Your task to perform on an android device: What's on my calendar today? Image 0: 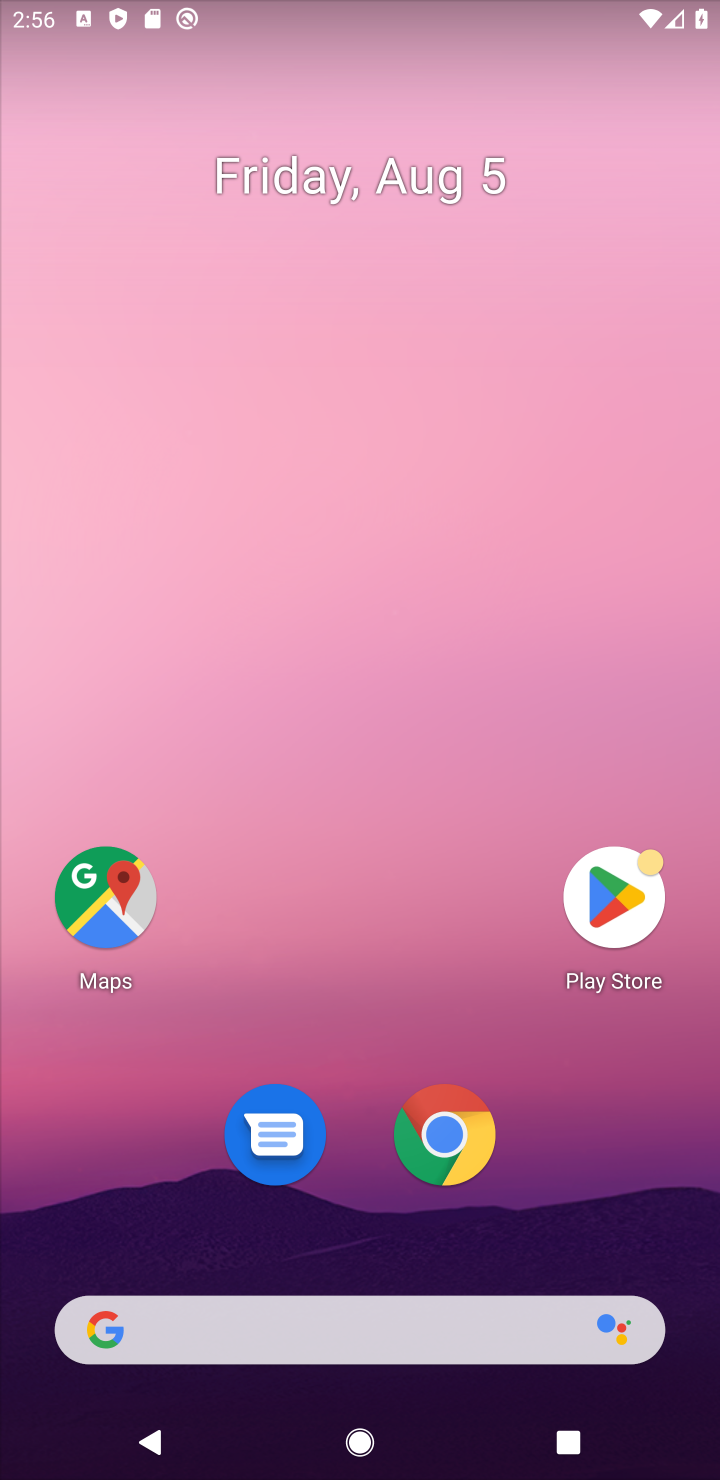
Step 0: drag from (359, 857) to (300, 117)
Your task to perform on an android device: What's on my calendar today? Image 1: 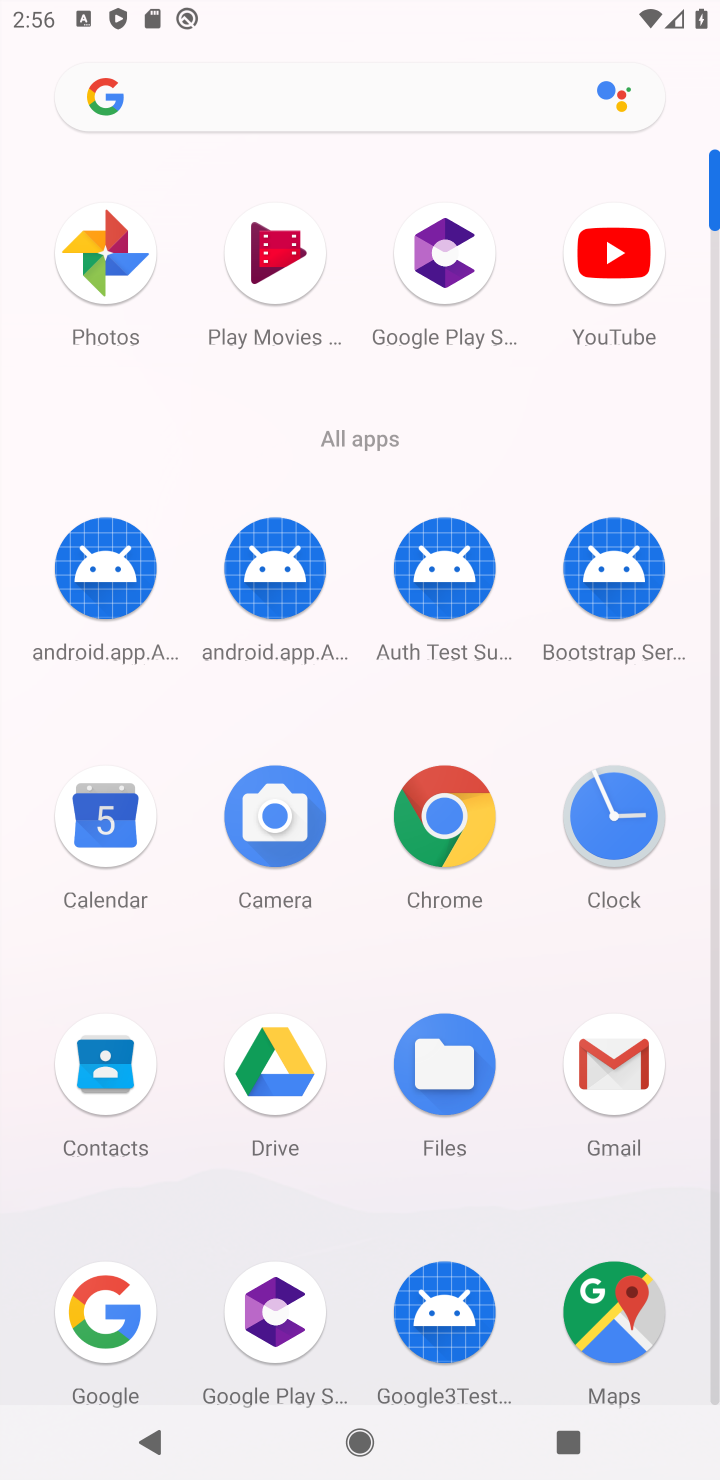
Step 1: click (94, 841)
Your task to perform on an android device: What's on my calendar today? Image 2: 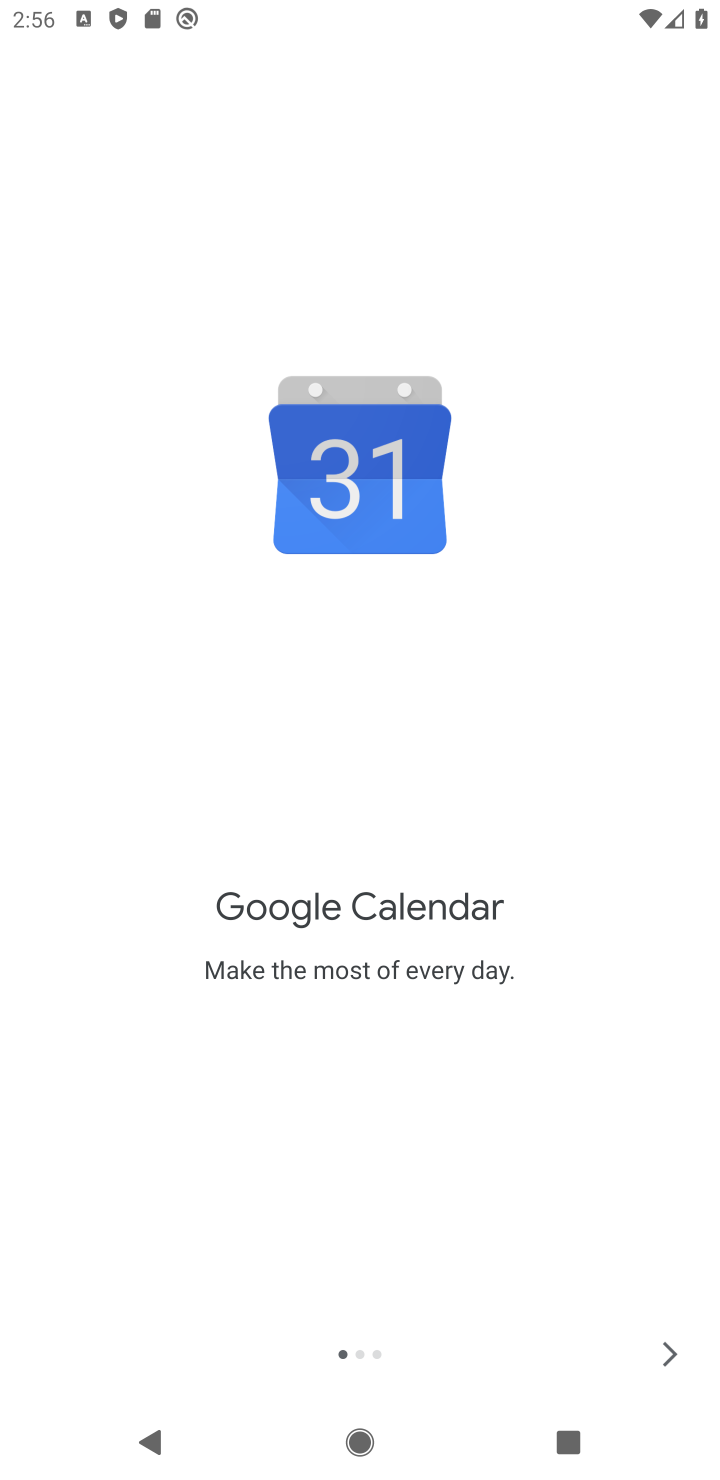
Step 2: task complete